Your task to perform on an android device: Set an alarm for 7am Image 0: 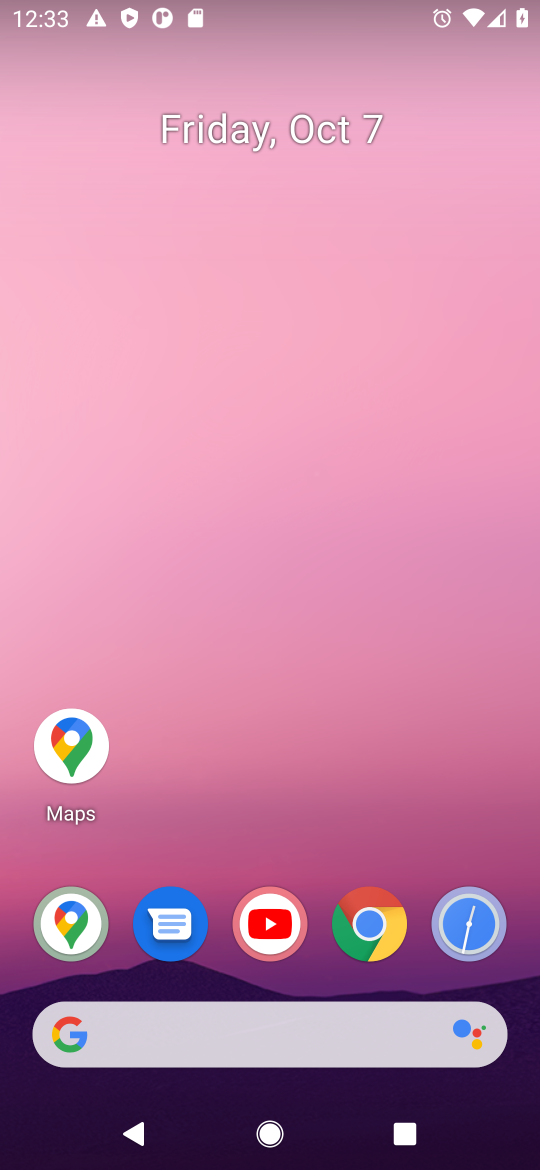
Step 0: drag from (286, 982) to (417, 302)
Your task to perform on an android device: Set an alarm for 7am Image 1: 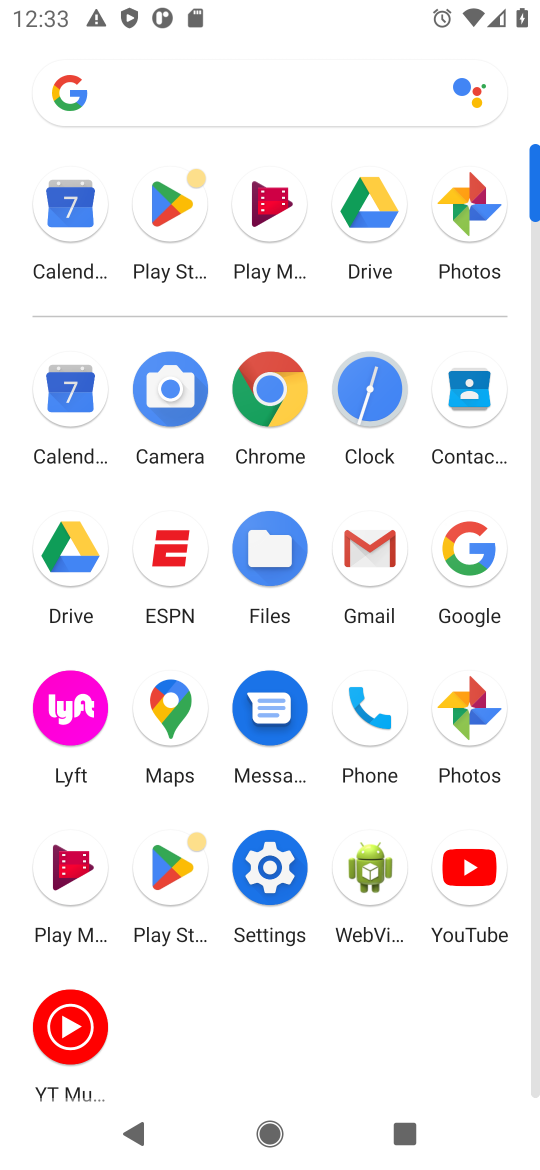
Step 1: click (361, 396)
Your task to perform on an android device: Set an alarm for 7am Image 2: 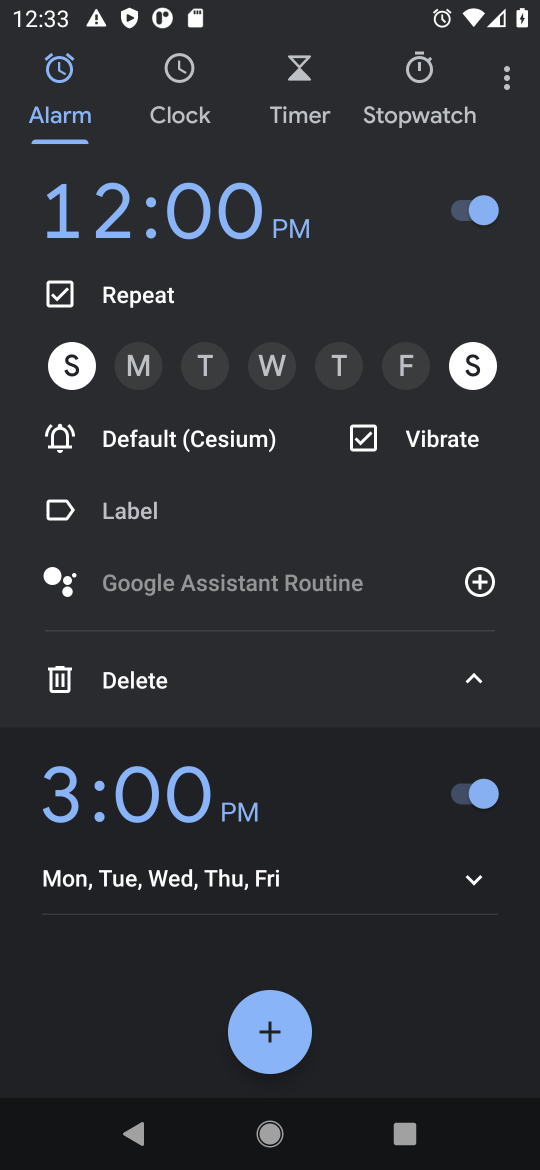
Step 2: click (205, 214)
Your task to perform on an android device: Set an alarm for 7am Image 3: 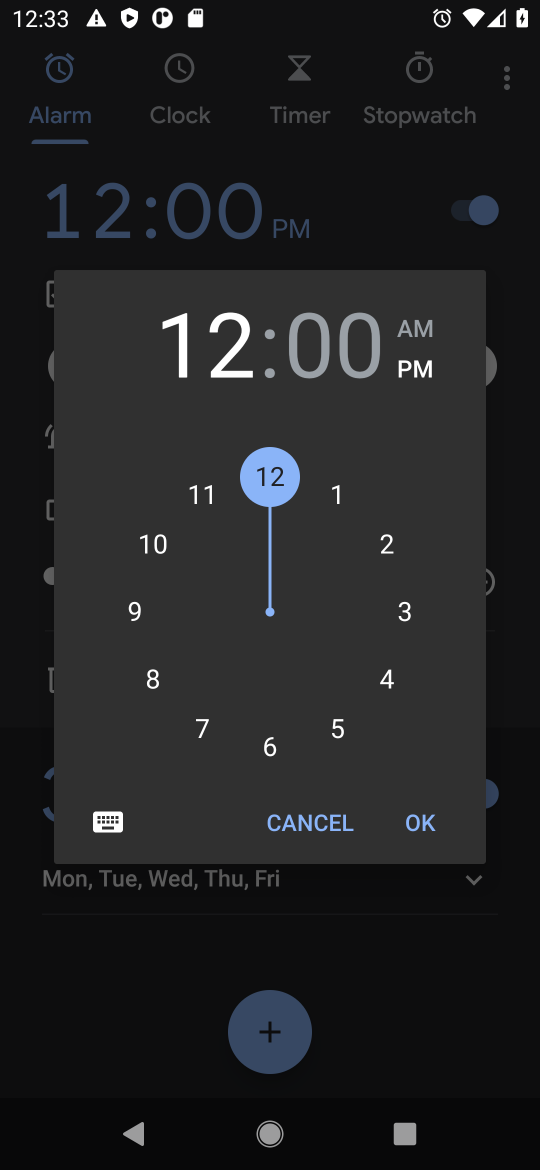
Step 3: click (201, 729)
Your task to perform on an android device: Set an alarm for 7am Image 4: 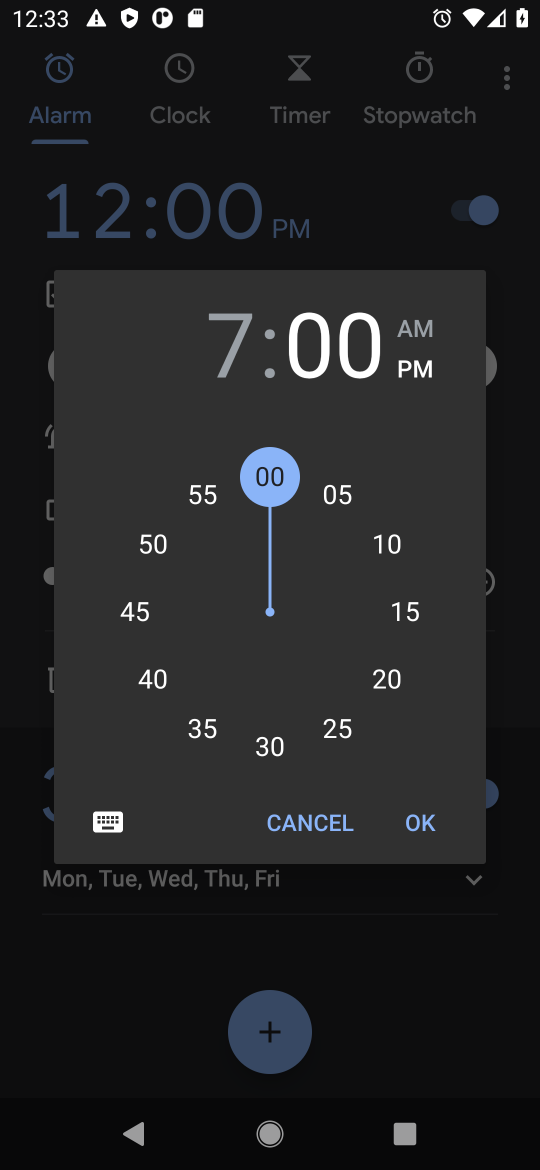
Step 4: click (415, 325)
Your task to perform on an android device: Set an alarm for 7am Image 5: 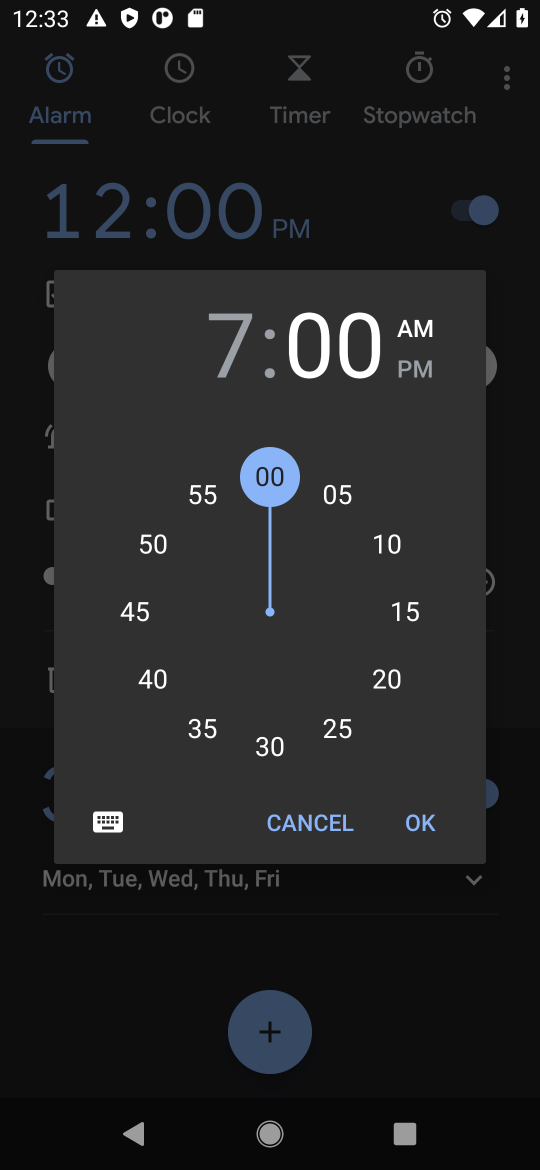
Step 5: click (425, 816)
Your task to perform on an android device: Set an alarm for 7am Image 6: 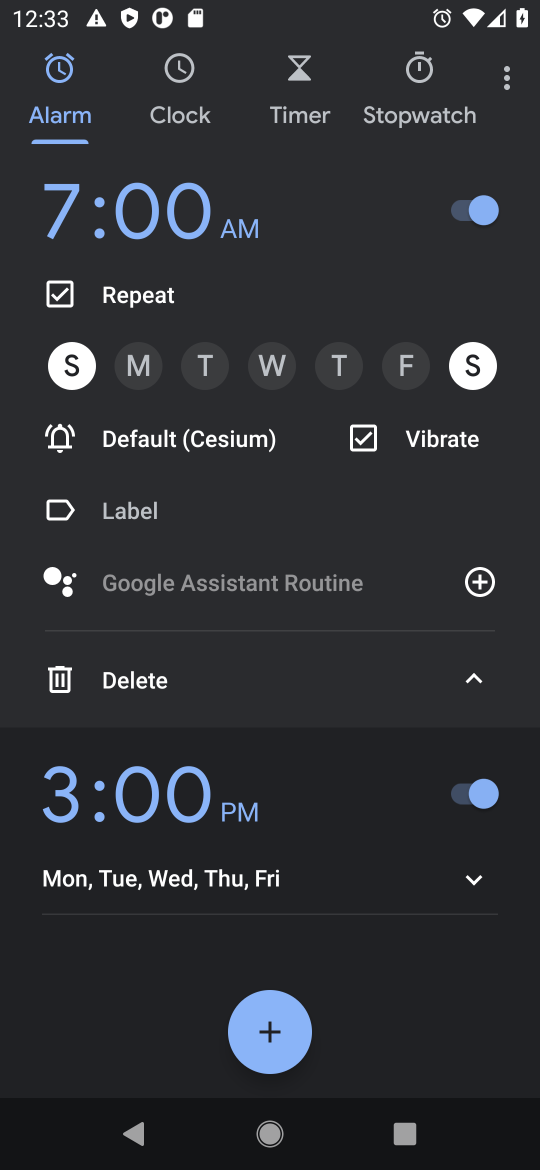
Step 6: task complete